Your task to perform on an android device: Find coffee shops on Maps Image 0: 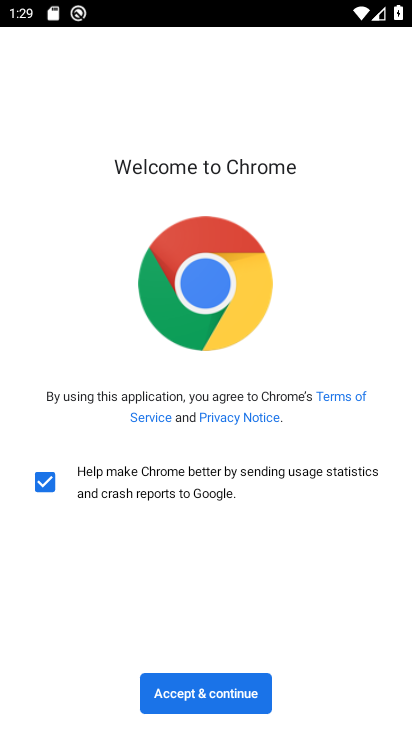
Step 0: press home button
Your task to perform on an android device: Find coffee shops on Maps Image 1: 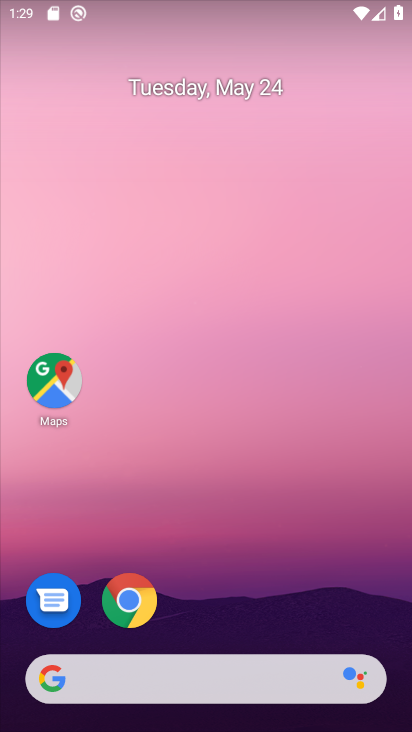
Step 1: click (57, 398)
Your task to perform on an android device: Find coffee shops on Maps Image 2: 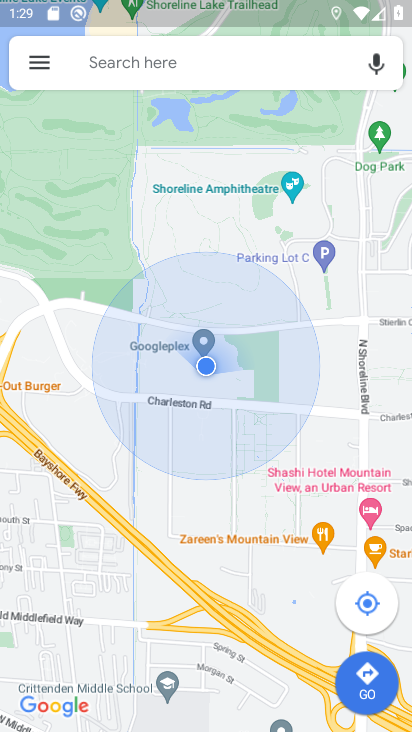
Step 2: click (180, 67)
Your task to perform on an android device: Find coffee shops on Maps Image 3: 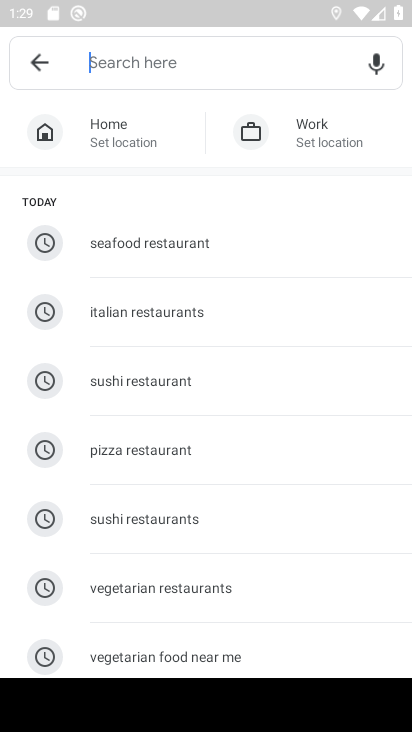
Step 3: type "coffee shops"
Your task to perform on an android device: Find coffee shops on Maps Image 4: 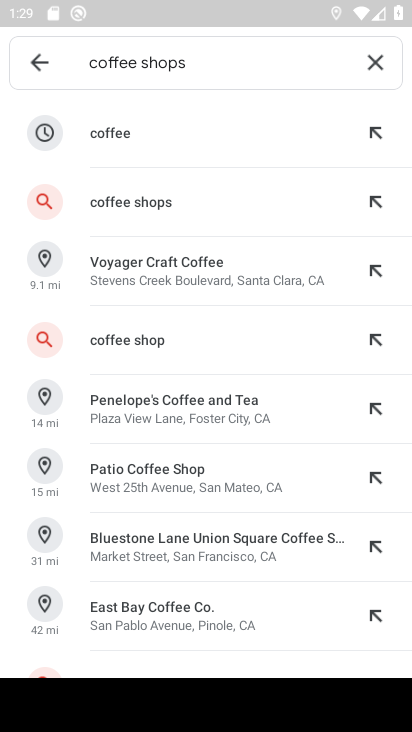
Step 4: click (223, 210)
Your task to perform on an android device: Find coffee shops on Maps Image 5: 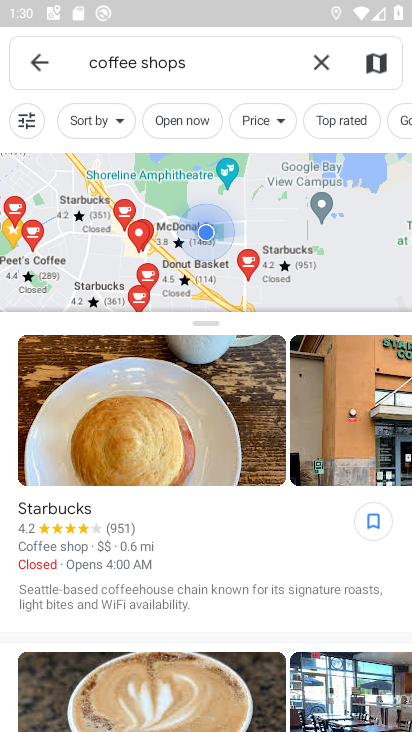
Step 5: task complete